Your task to perform on an android device: toggle sleep mode Image 0: 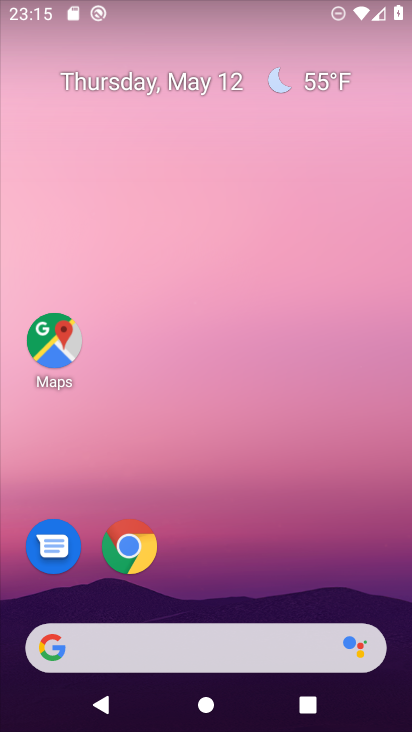
Step 0: drag from (190, 559) to (227, 126)
Your task to perform on an android device: toggle sleep mode Image 1: 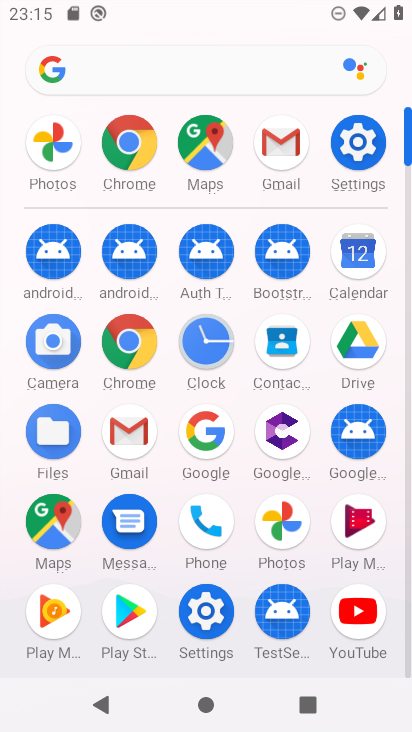
Step 1: click (202, 616)
Your task to perform on an android device: toggle sleep mode Image 2: 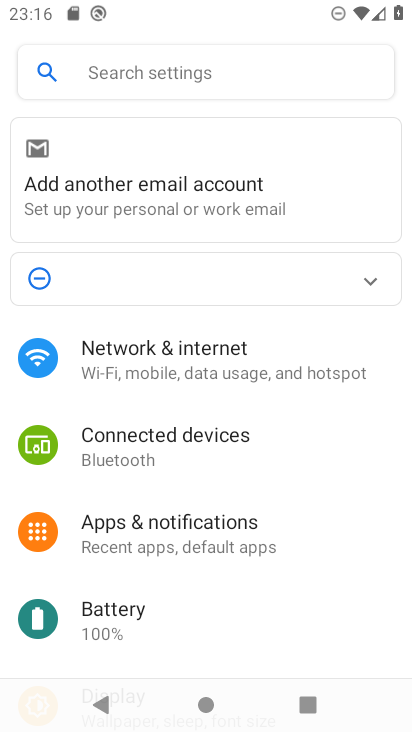
Step 2: drag from (178, 588) to (235, 308)
Your task to perform on an android device: toggle sleep mode Image 3: 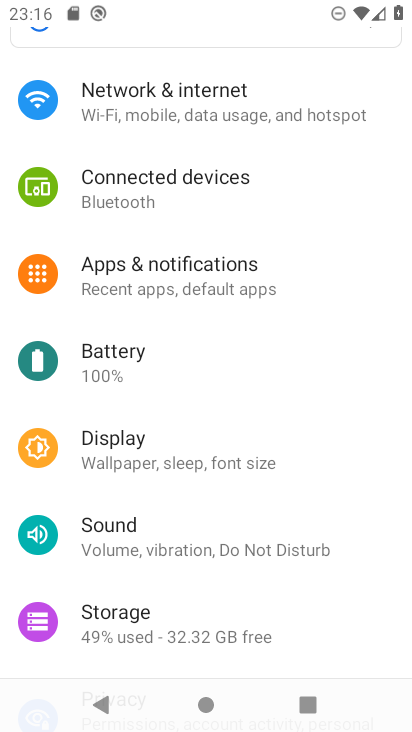
Step 3: click (168, 464)
Your task to perform on an android device: toggle sleep mode Image 4: 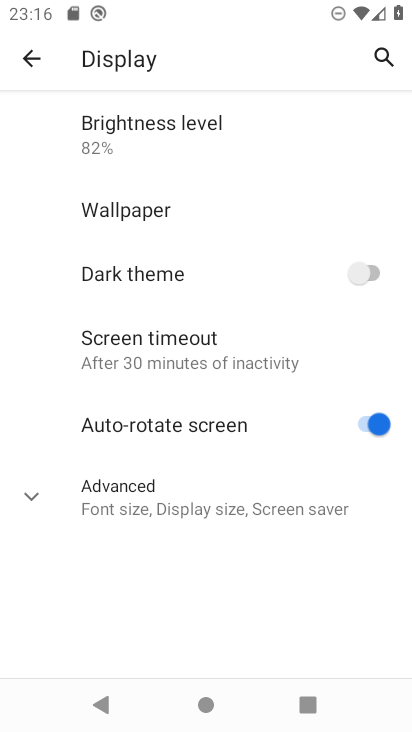
Step 4: task complete